Your task to perform on an android device: delete the emails in spam in the gmail app Image 0: 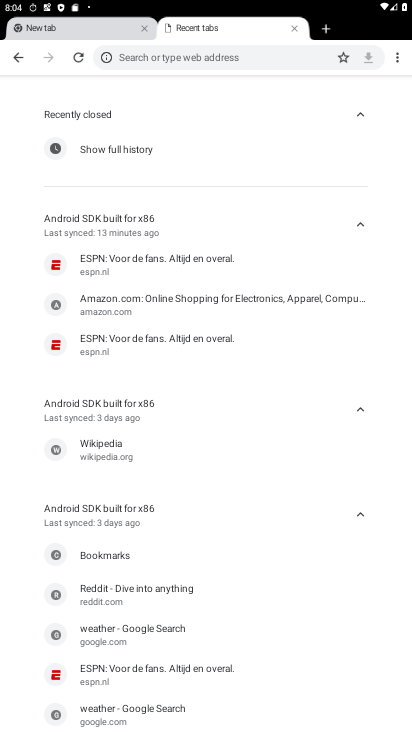
Step 0: task complete